Your task to perform on an android device: turn on wifi Image 0: 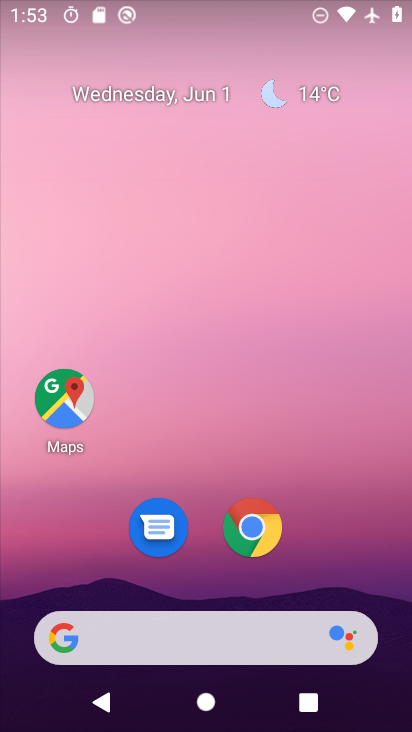
Step 0: drag from (239, 417) to (317, 30)
Your task to perform on an android device: turn on wifi Image 1: 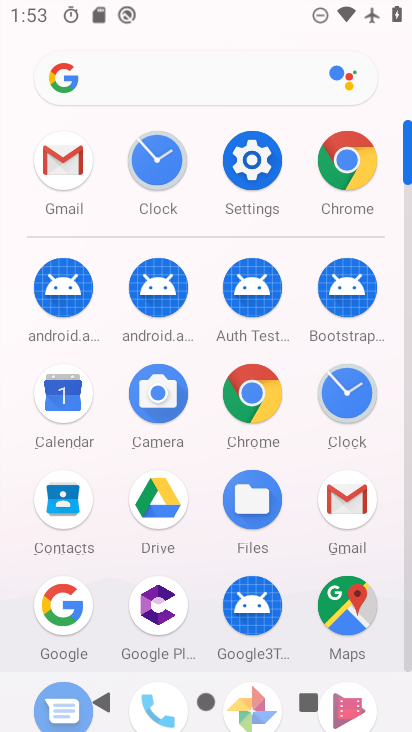
Step 1: click (264, 182)
Your task to perform on an android device: turn on wifi Image 2: 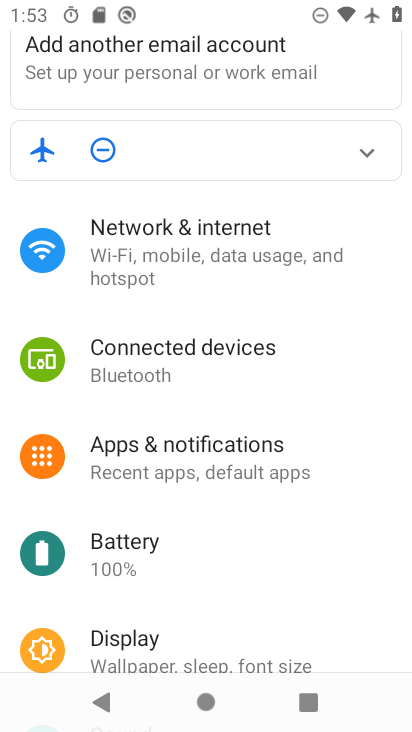
Step 2: drag from (214, 193) to (167, 439)
Your task to perform on an android device: turn on wifi Image 3: 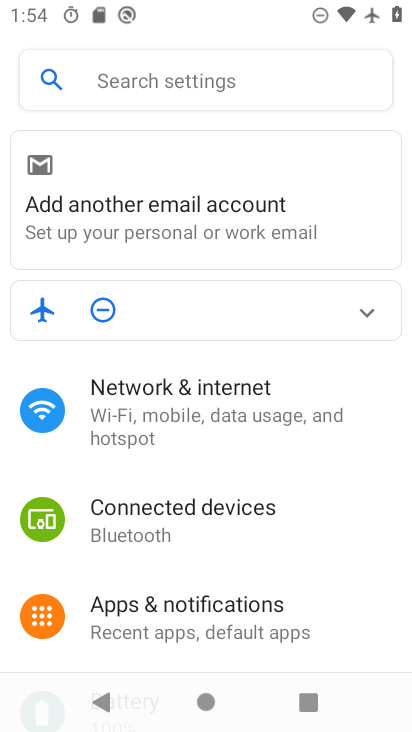
Step 3: click (186, 385)
Your task to perform on an android device: turn on wifi Image 4: 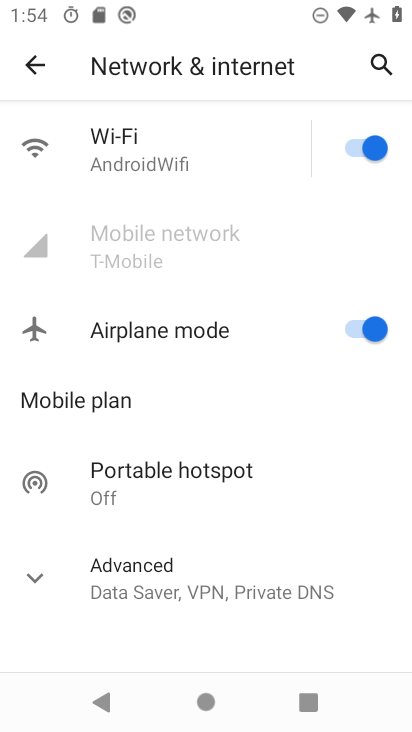
Step 4: task complete